Your task to perform on an android device: Open Yahoo.com Image 0: 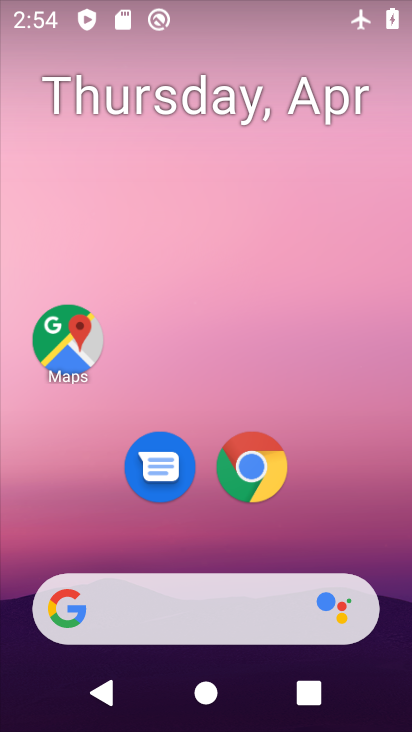
Step 0: click (198, 621)
Your task to perform on an android device: Open Yahoo.com Image 1: 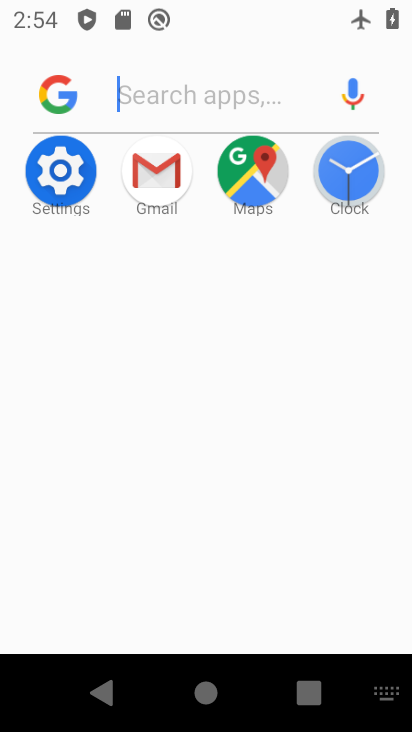
Step 1: type "yahoo.com"
Your task to perform on an android device: Open Yahoo.com Image 2: 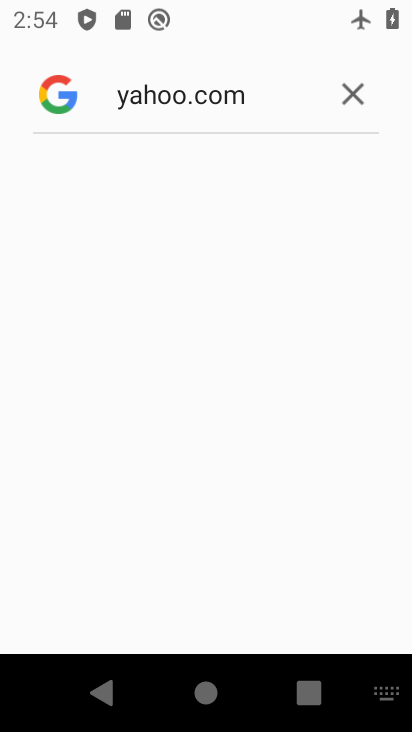
Step 2: task complete